Your task to perform on an android device: Go to ESPN.com Image 0: 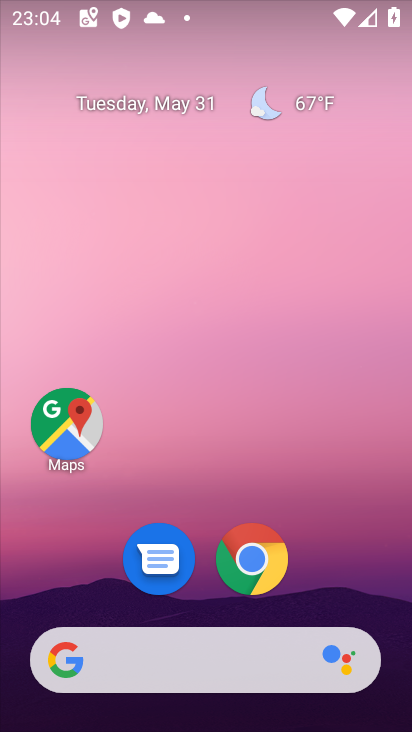
Step 0: drag from (288, 598) to (323, 111)
Your task to perform on an android device: Go to ESPN.com Image 1: 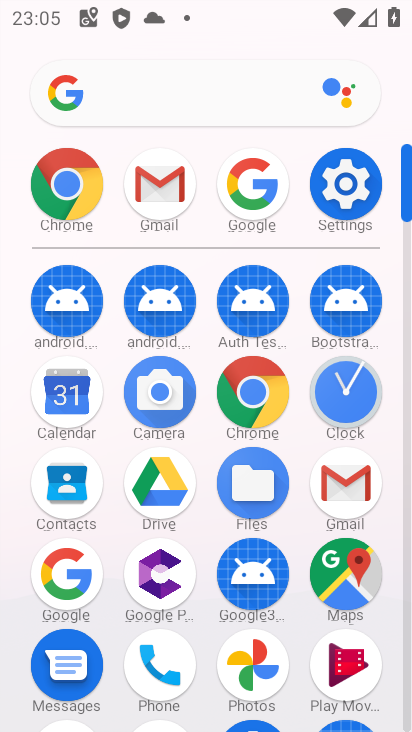
Step 1: click (73, 579)
Your task to perform on an android device: Go to ESPN.com Image 2: 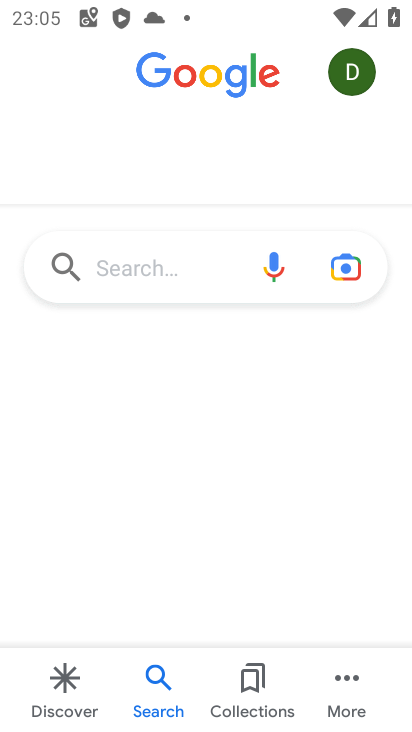
Step 2: click (139, 276)
Your task to perform on an android device: Go to ESPN.com Image 3: 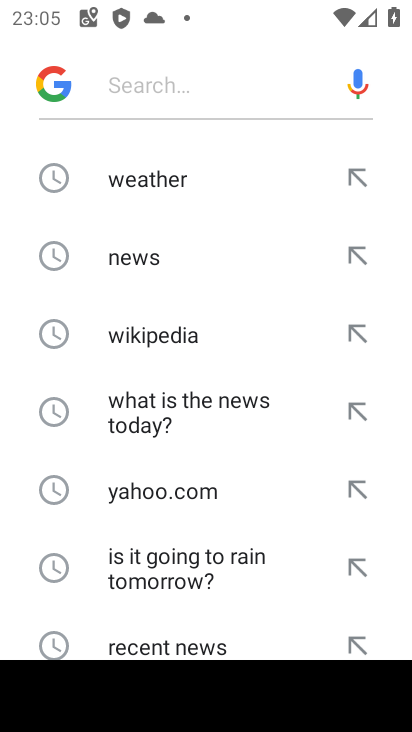
Step 3: drag from (189, 580) to (198, 243)
Your task to perform on an android device: Go to ESPN.com Image 4: 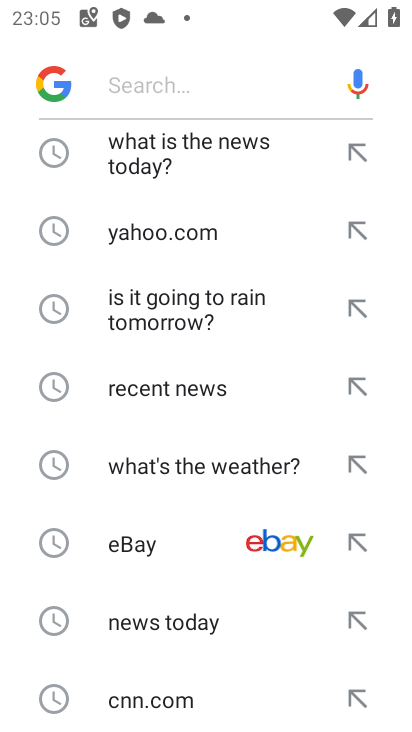
Step 4: drag from (192, 661) to (204, 313)
Your task to perform on an android device: Go to ESPN.com Image 5: 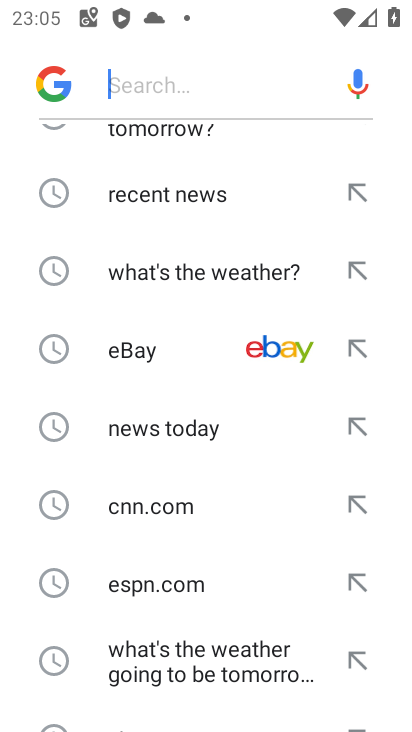
Step 5: click (177, 597)
Your task to perform on an android device: Go to ESPN.com Image 6: 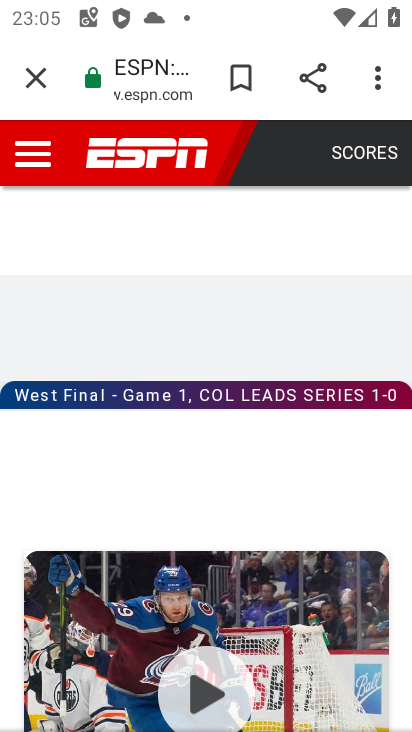
Step 6: task complete